Your task to perform on an android device: toggle sleep mode Image 0: 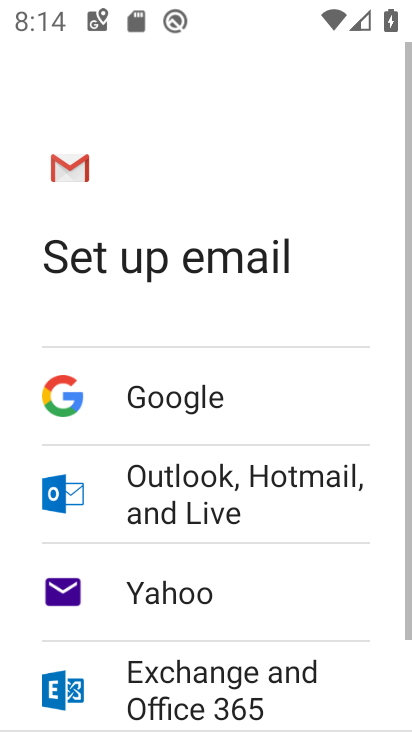
Step 0: press back button
Your task to perform on an android device: toggle sleep mode Image 1: 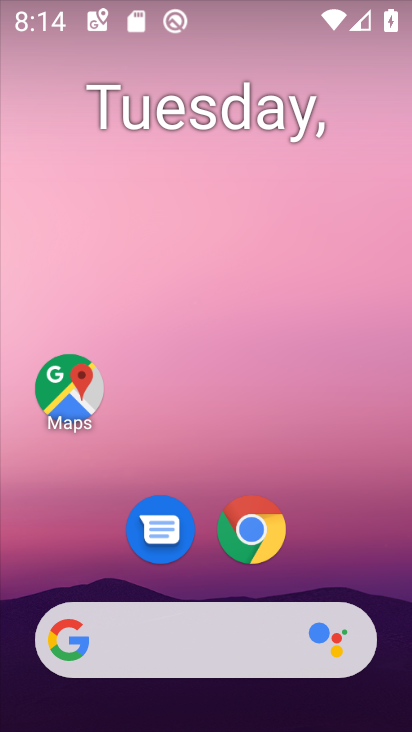
Step 1: drag from (206, 487) to (316, 1)
Your task to perform on an android device: toggle sleep mode Image 2: 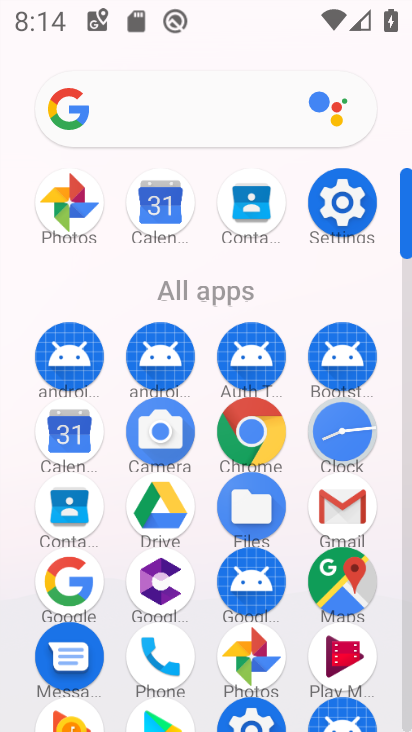
Step 2: click (346, 197)
Your task to perform on an android device: toggle sleep mode Image 3: 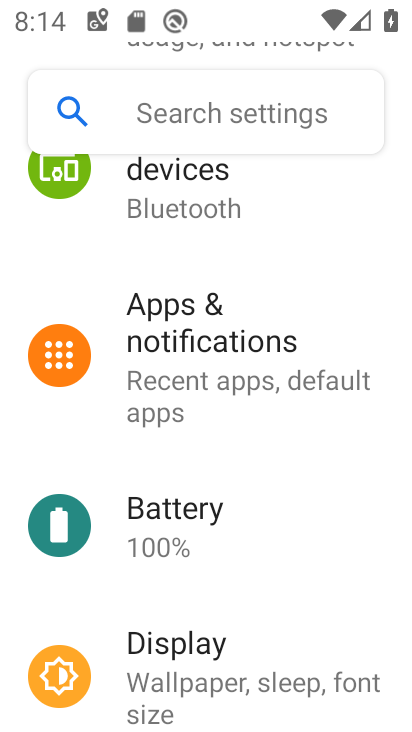
Step 3: click (204, 112)
Your task to perform on an android device: toggle sleep mode Image 4: 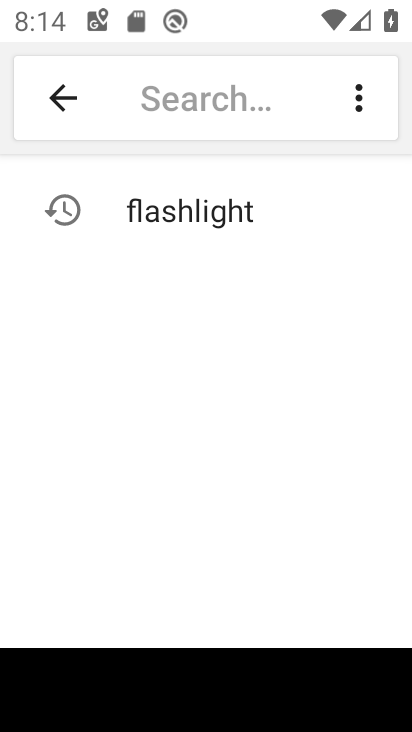
Step 4: type "sleep mode"
Your task to perform on an android device: toggle sleep mode Image 5: 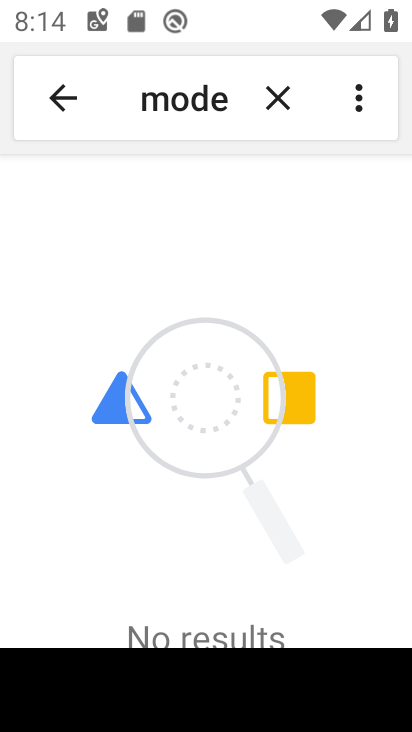
Step 5: task complete